Your task to perform on an android device: open chrome and create a bookmark for the current page Image 0: 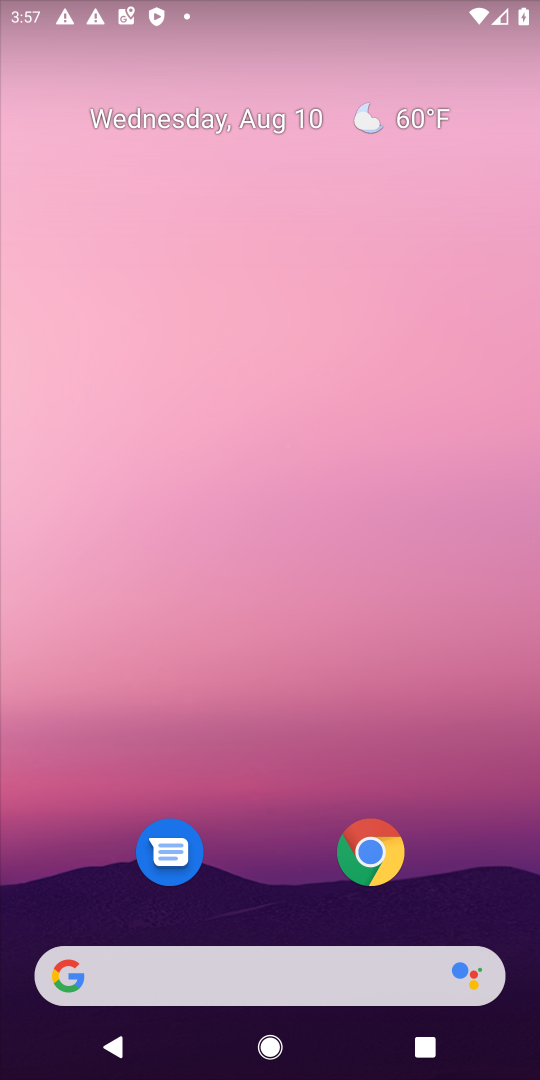
Step 0: drag from (280, 865) to (314, 147)
Your task to perform on an android device: open chrome and create a bookmark for the current page Image 1: 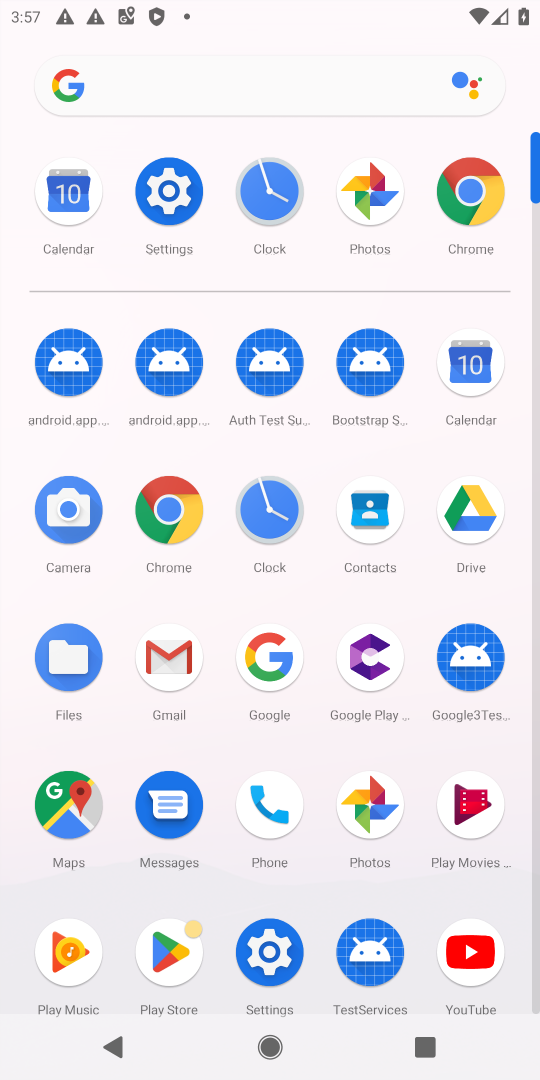
Step 1: click (177, 523)
Your task to perform on an android device: open chrome and create a bookmark for the current page Image 2: 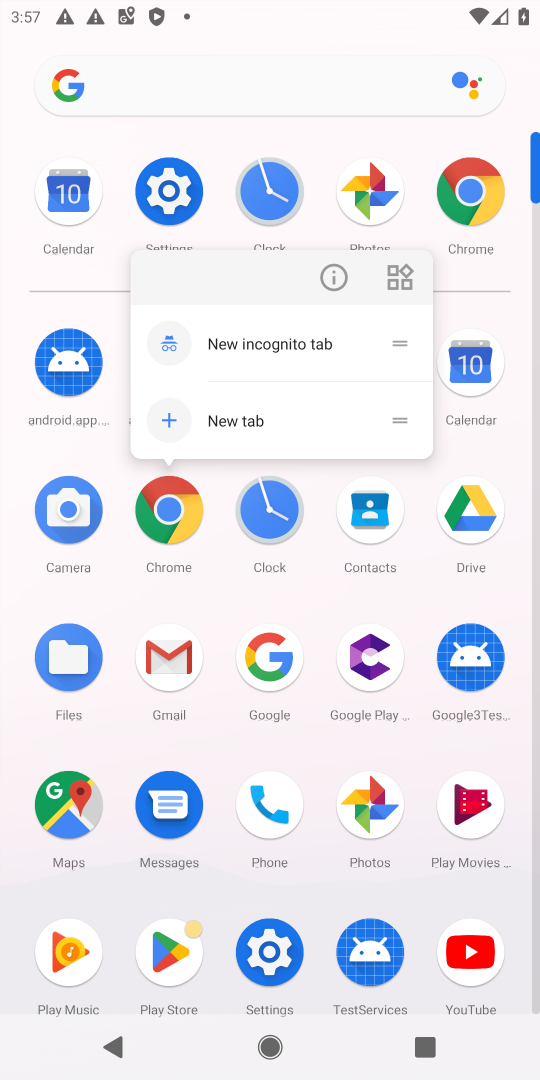
Step 2: click (169, 510)
Your task to perform on an android device: open chrome and create a bookmark for the current page Image 3: 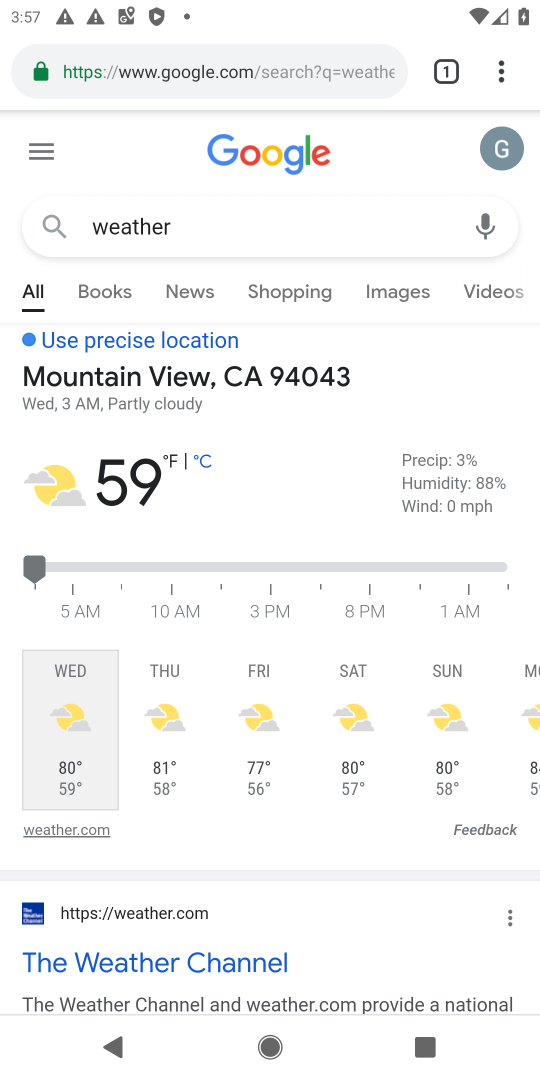
Step 3: task complete